Your task to perform on an android device: Open settings Image 0: 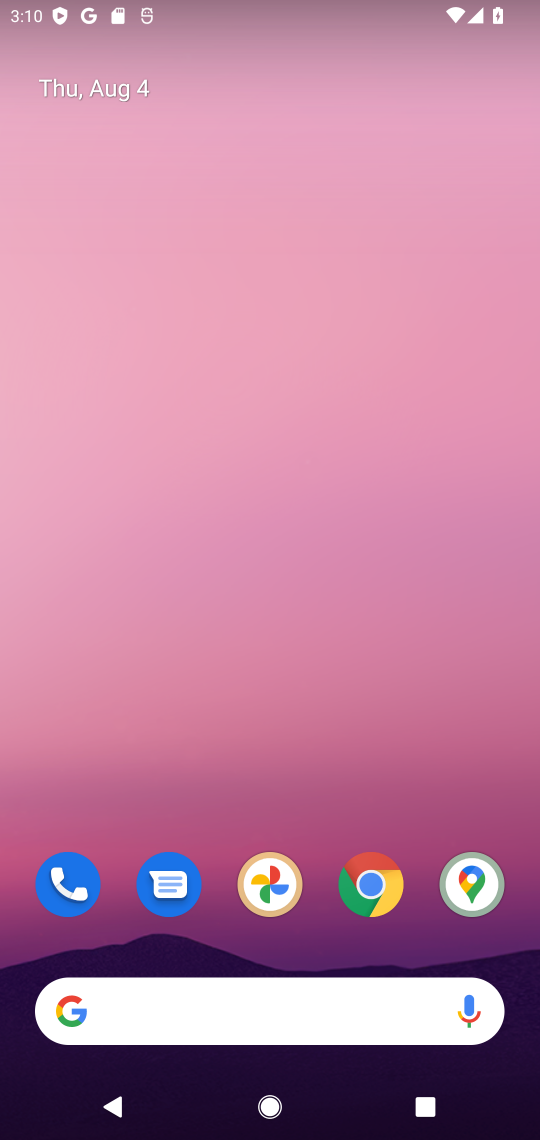
Step 0: click (249, 326)
Your task to perform on an android device: Open settings Image 1: 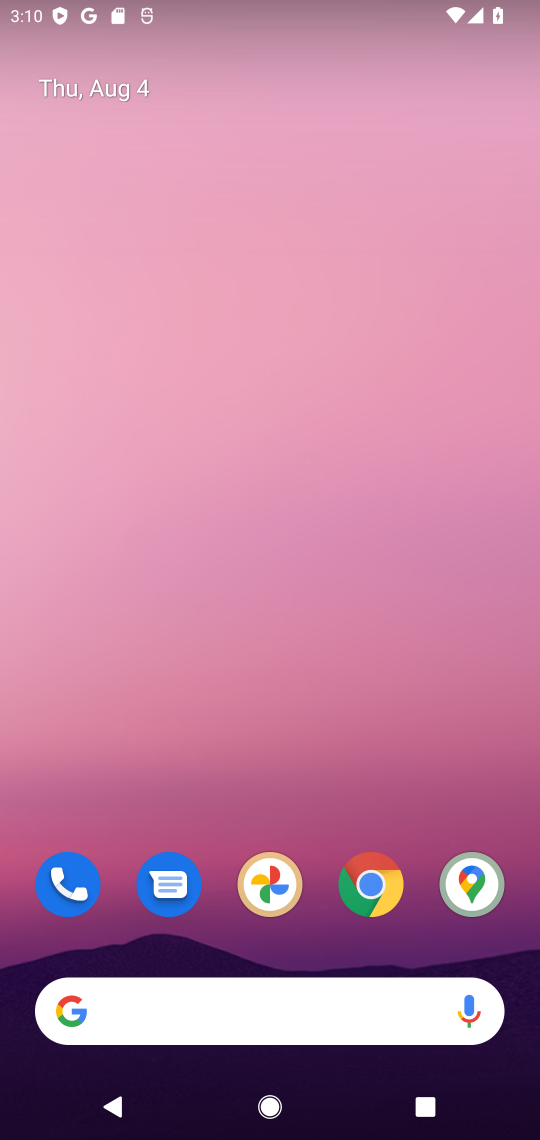
Step 1: drag from (307, 921) to (323, 639)
Your task to perform on an android device: Open settings Image 2: 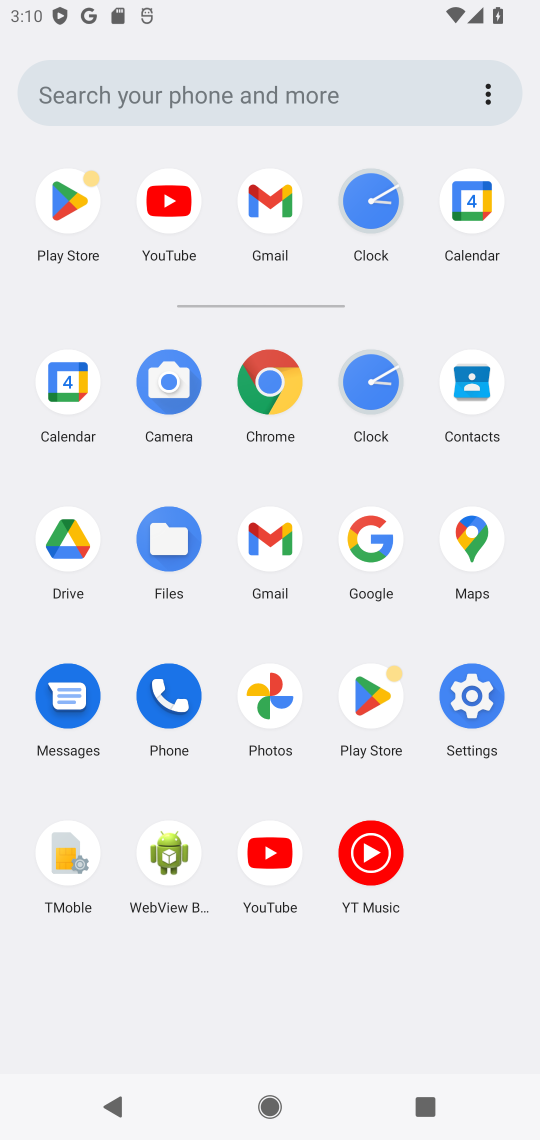
Step 2: drag from (194, 988) to (261, 769)
Your task to perform on an android device: Open settings Image 3: 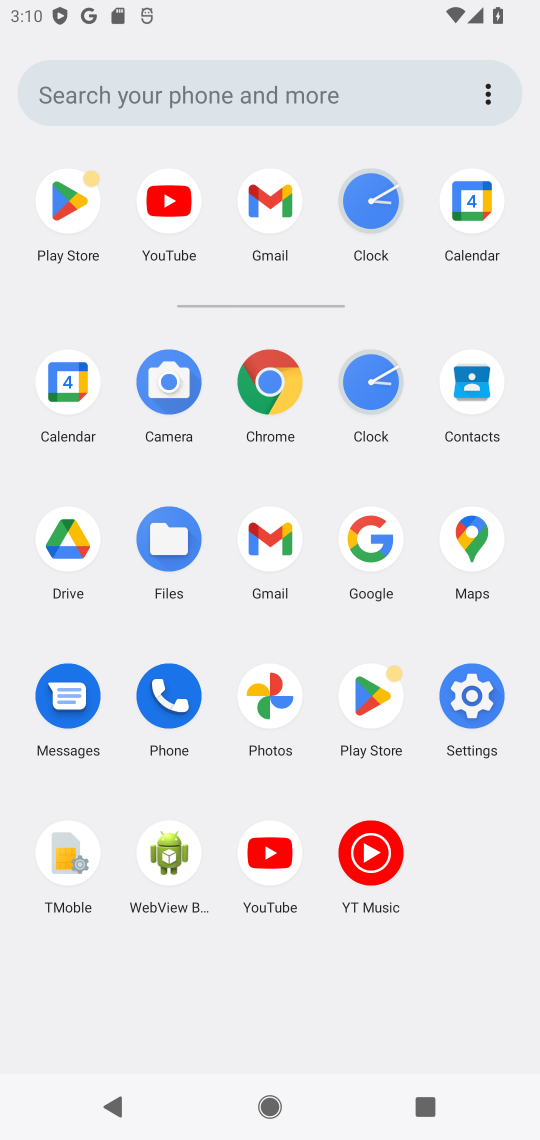
Step 3: drag from (214, 955) to (295, 529)
Your task to perform on an android device: Open settings Image 4: 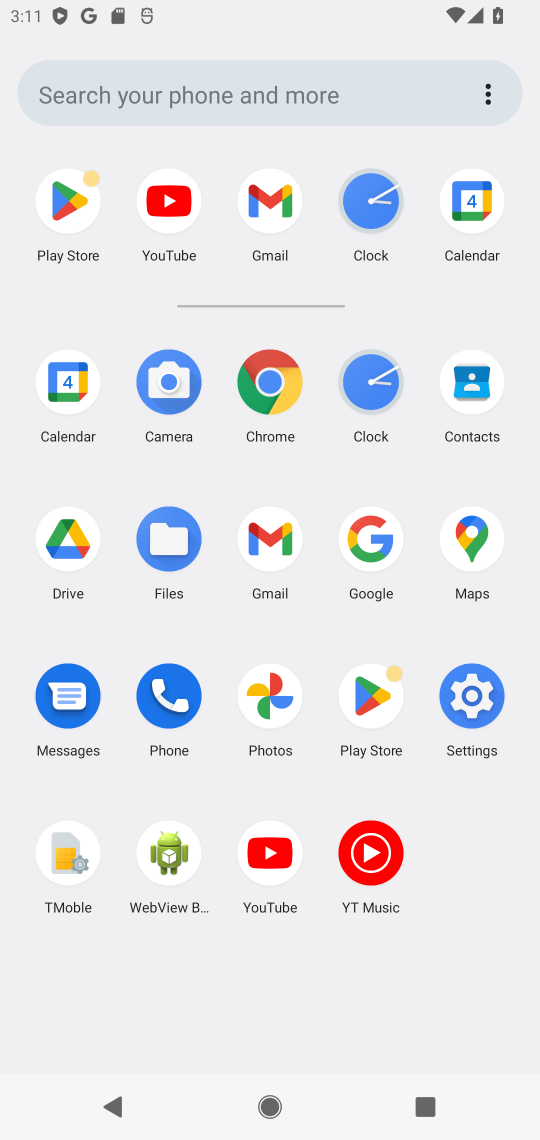
Step 4: click (477, 684)
Your task to perform on an android device: Open settings Image 5: 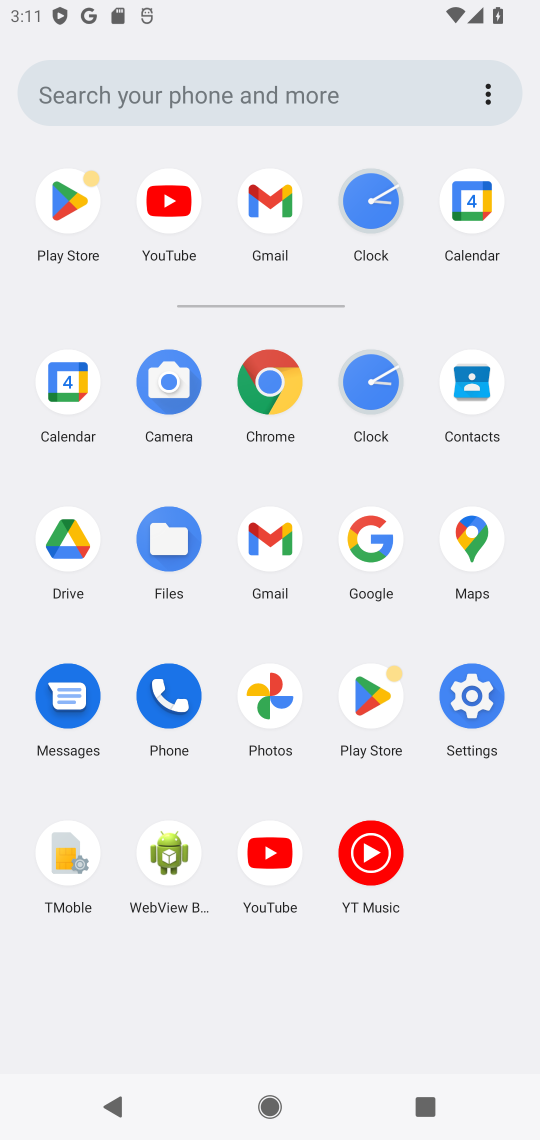
Step 5: click (477, 684)
Your task to perform on an android device: Open settings Image 6: 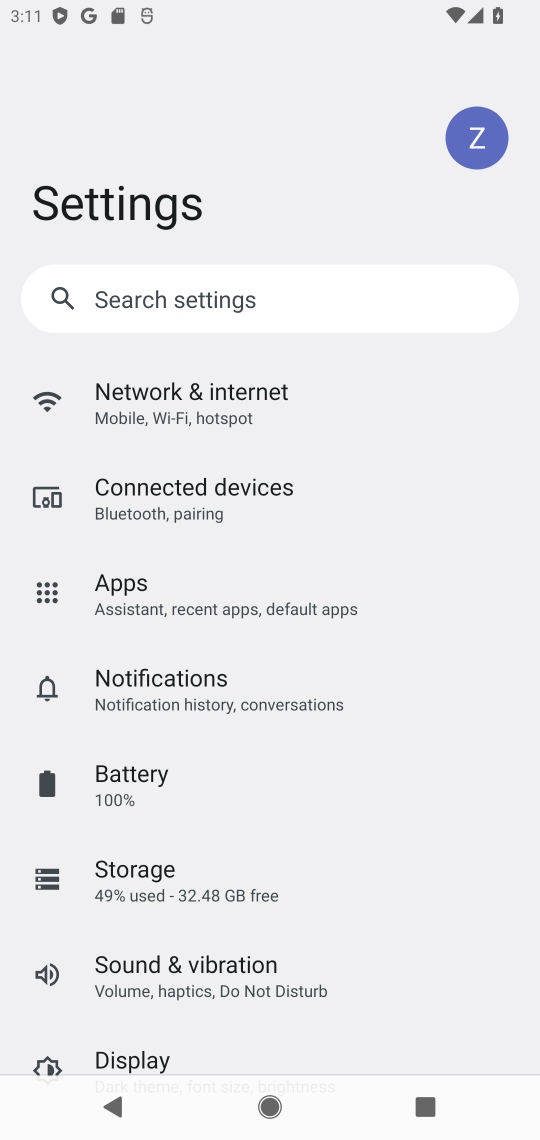
Step 6: drag from (272, 855) to (333, 435)
Your task to perform on an android device: Open settings Image 7: 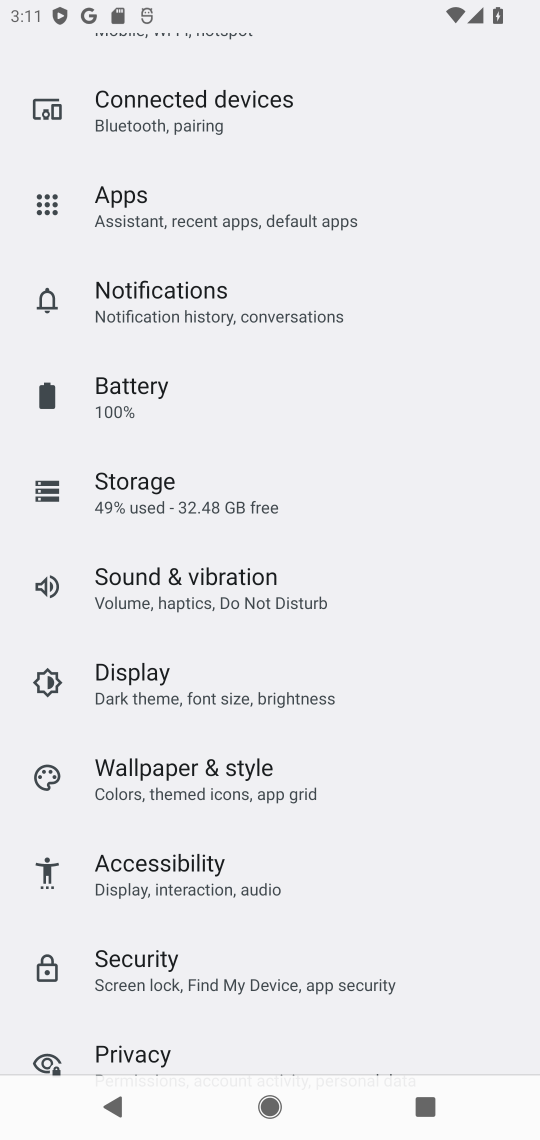
Step 7: drag from (330, 281) to (488, 1138)
Your task to perform on an android device: Open settings Image 8: 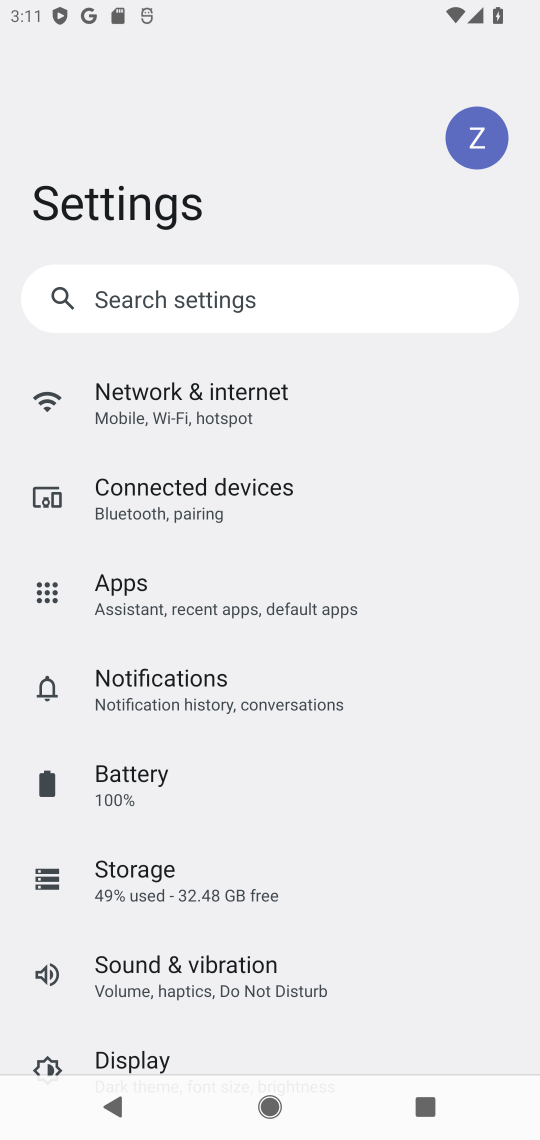
Step 8: click (190, 288)
Your task to perform on an android device: Open settings Image 9: 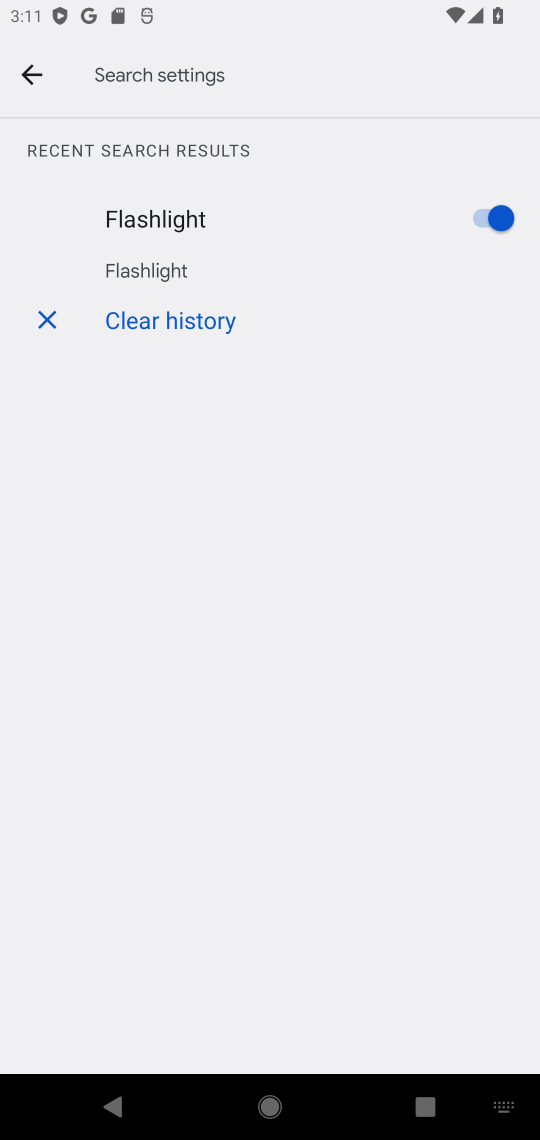
Step 9: click (38, 76)
Your task to perform on an android device: Open settings Image 10: 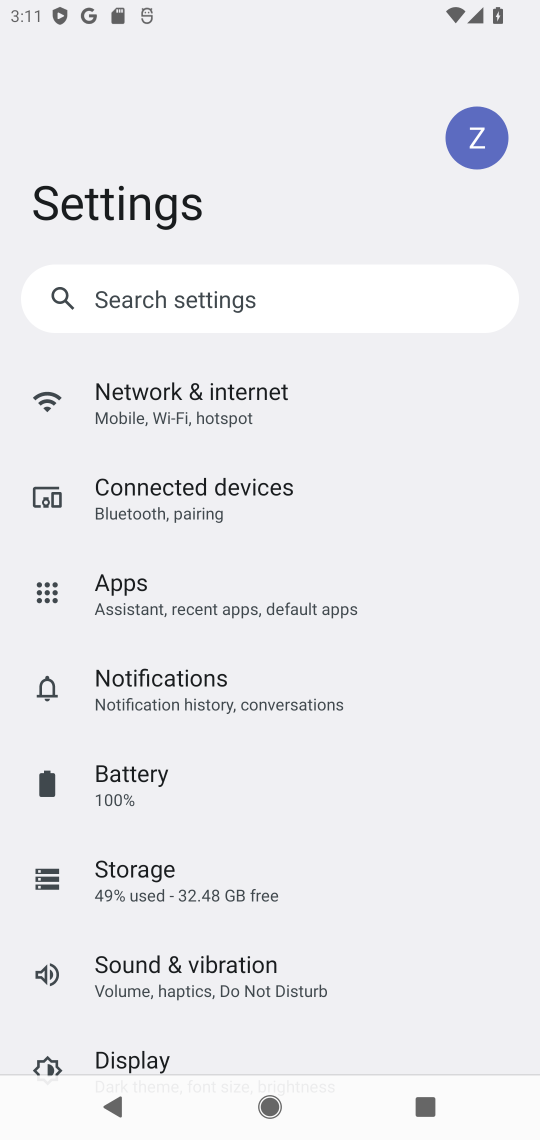
Step 10: task complete